Your task to perform on an android device: open the mobile data screen to see how much data has been used Image 0: 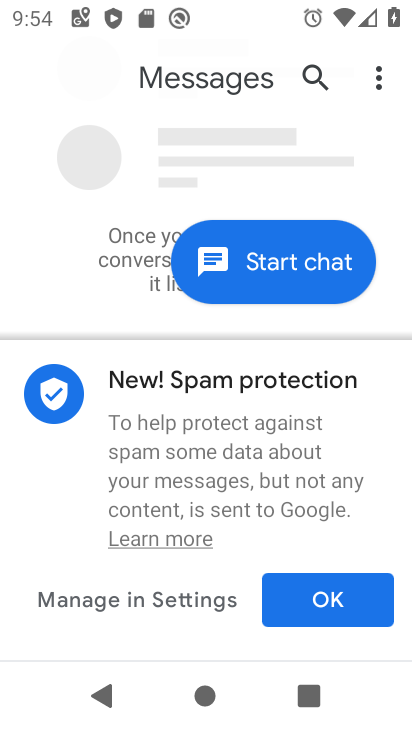
Step 0: press home button
Your task to perform on an android device: open the mobile data screen to see how much data has been used Image 1: 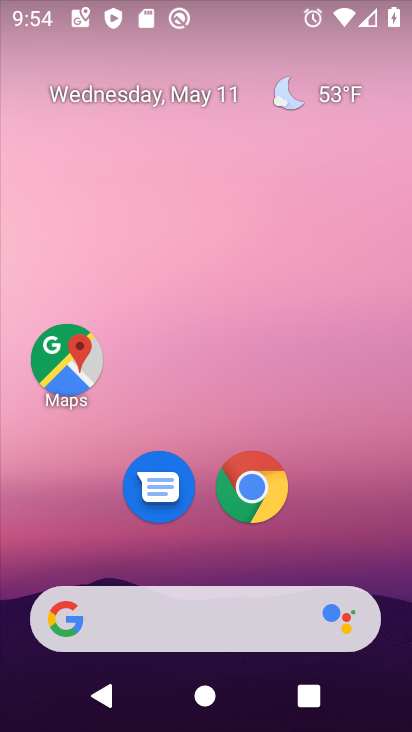
Step 1: drag from (190, 550) to (190, 182)
Your task to perform on an android device: open the mobile data screen to see how much data has been used Image 2: 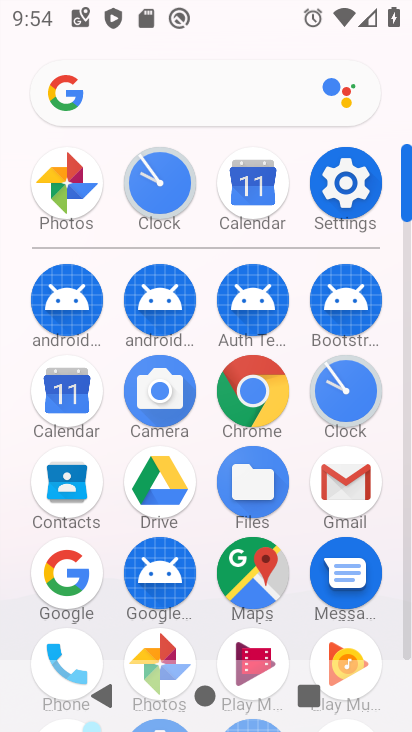
Step 2: click (326, 197)
Your task to perform on an android device: open the mobile data screen to see how much data has been used Image 3: 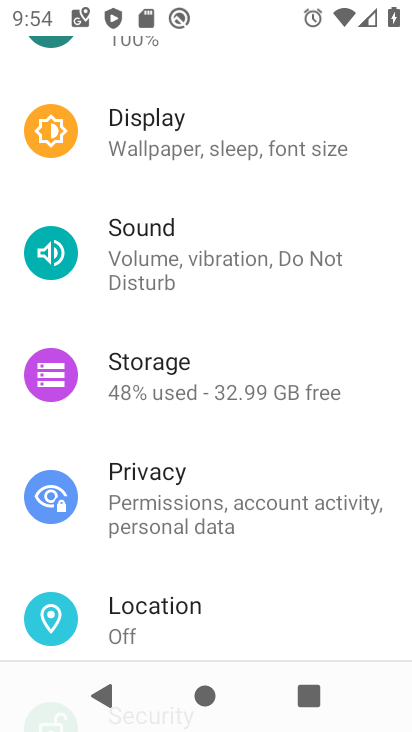
Step 3: drag from (196, 270) to (211, 577)
Your task to perform on an android device: open the mobile data screen to see how much data has been used Image 4: 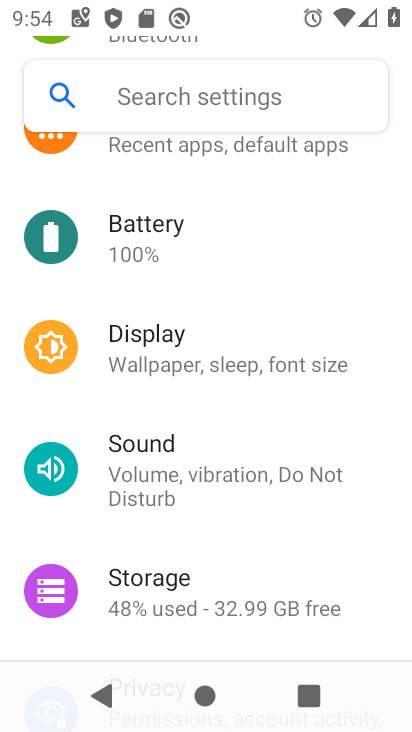
Step 4: drag from (234, 250) to (206, 667)
Your task to perform on an android device: open the mobile data screen to see how much data has been used Image 5: 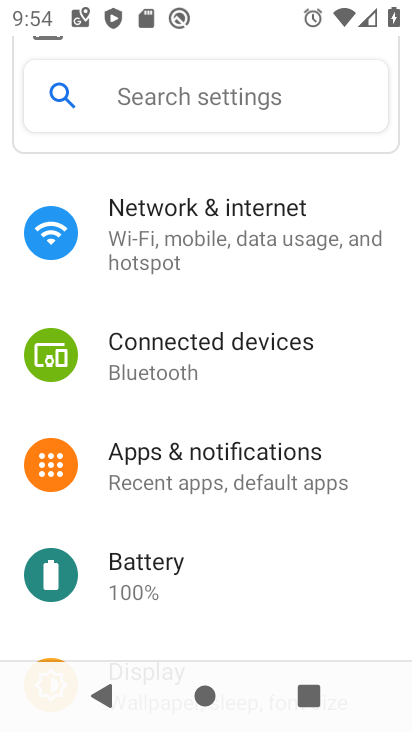
Step 5: click (197, 232)
Your task to perform on an android device: open the mobile data screen to see how much data has been used Image 6: 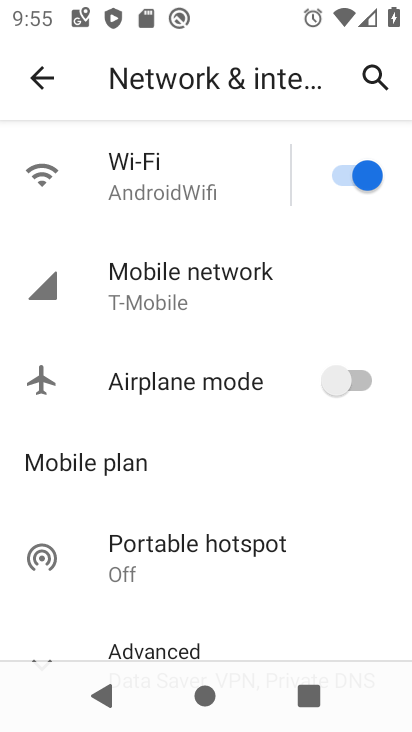
Step 6: click (192, 283)
Your task to perform on an android device: open the mobile data screen to see how much data has been used Image 7: 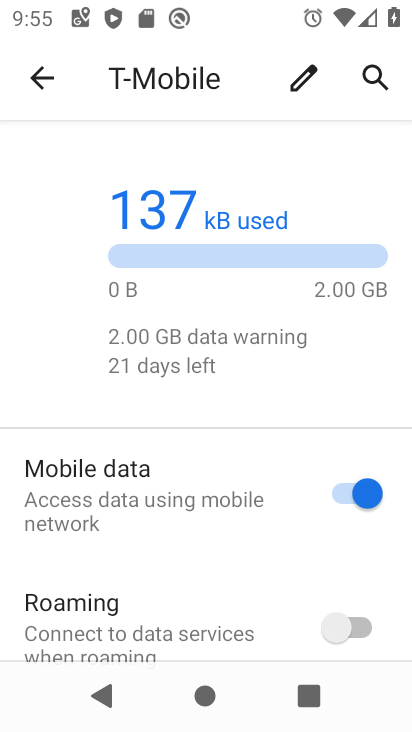
Step 7: drag from (171, 556) to (181, 333)
Your task to perform on an android device: open the mobile data screen to see how much data has been used Image 8: 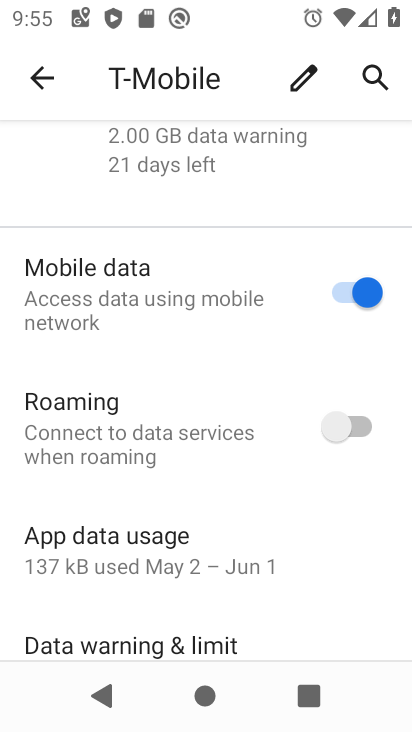
Step 8: click (145, 544)
Your task to perform on an android device: open the mobile data screen to see how much data has been used Image 9: 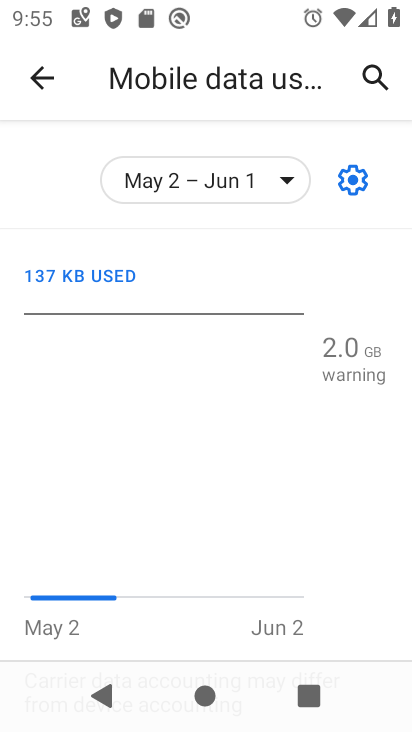
Step 9: task complete